Your task to perform on an android device: show emergency info Image 0: 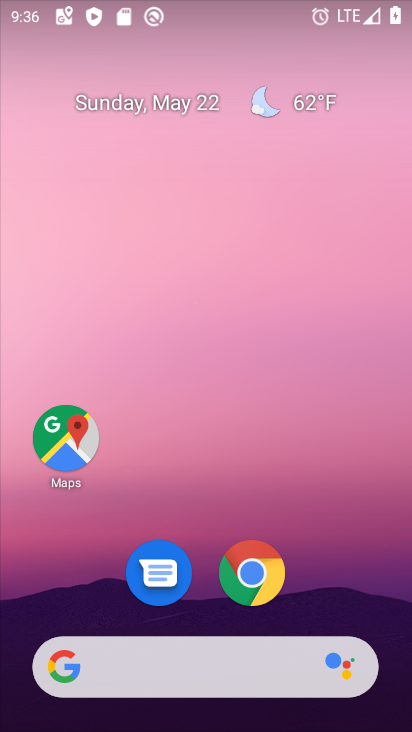
Step 0: drag from (279, 691) to (392, 19)
Your task to perform on an android device: show emergency info Image 1: 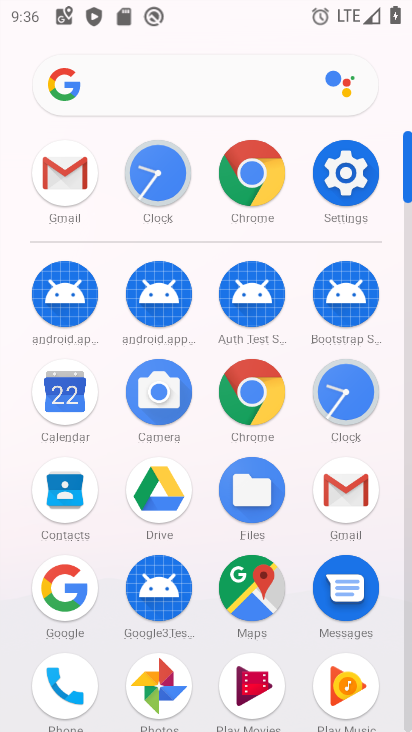
Step 1: click (332, 178)
Your task to perform on an android device: show emergency info Image 2: 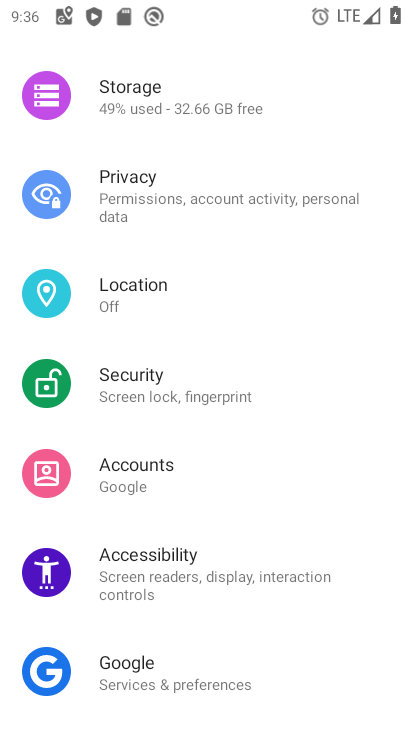
Step 2: drag from (210, 640) to (189, 125)
Your task to perform on an android device: show emergency info Image 3: 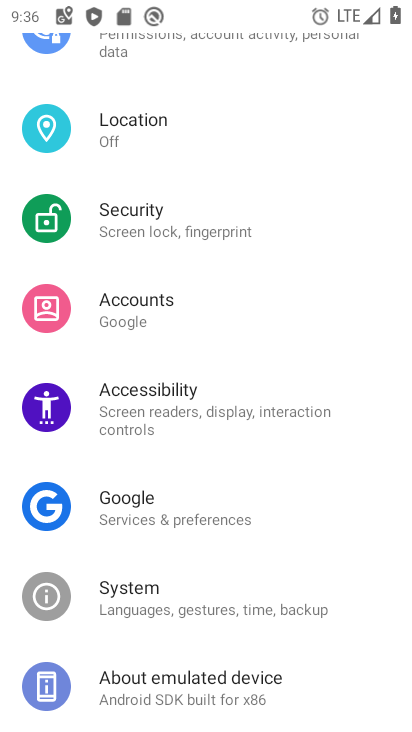
Step 3: click (250, 693)
Your task to perform on an android device: show emergency info Image 4: 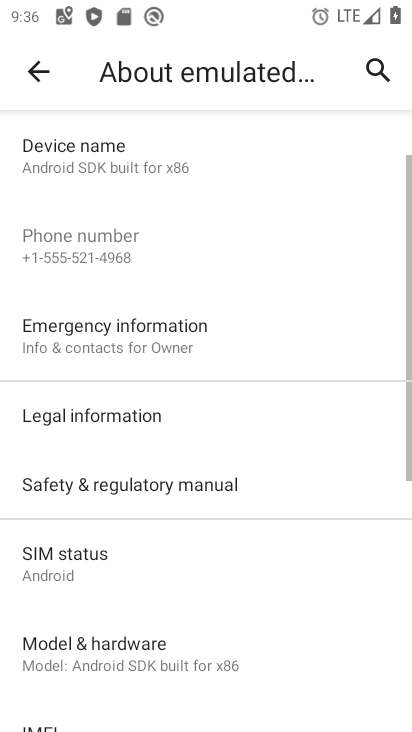
Step 4: click (206, 348)
Your task to perform on an android device: show emergency info Image 5: 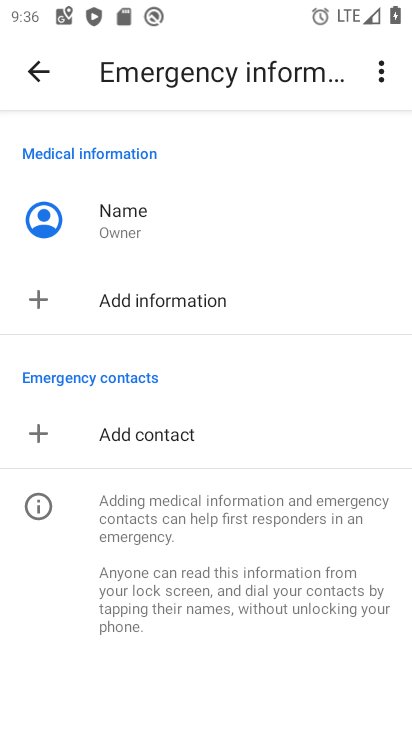
Step 5: task complete